Your task to perform on an android device: Open battery settings Image 0: 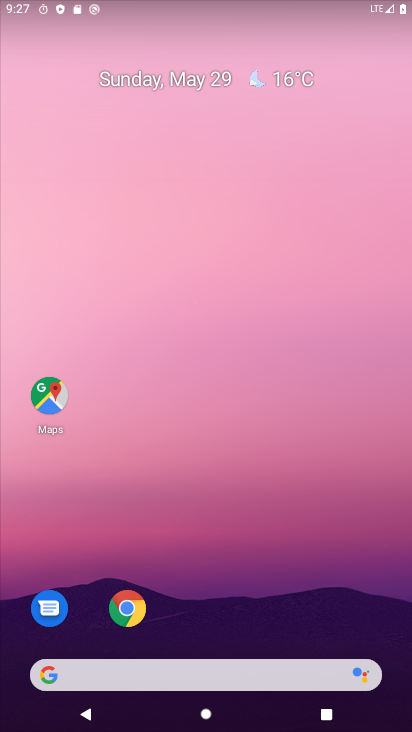
Step 0: drag from (211, 618) to (327, 62)
Your task to perform on an android device: Open battery settings Image 1: 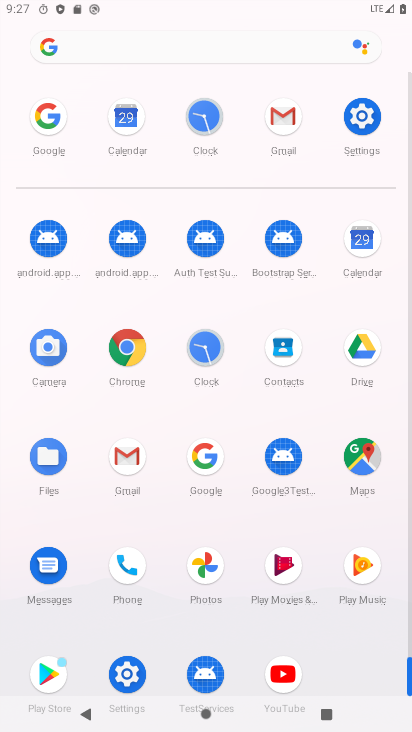
Step 1: click (368, 113)
Your task to perform on an android device: Open battery settings Image 2: 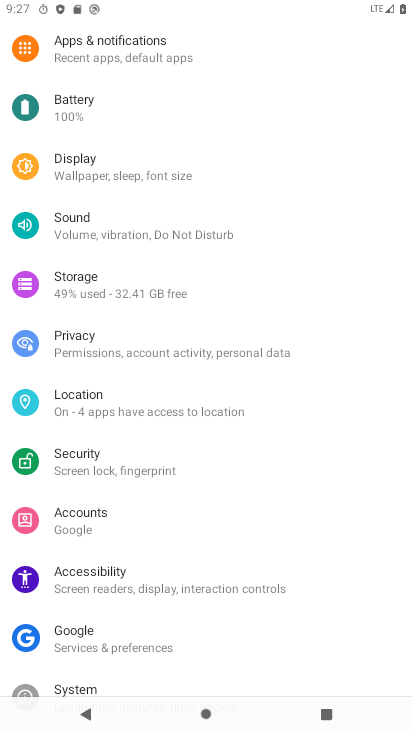
Step 2: click (59, 107)
Your task to perform on an android device: Open battery settings Image 3: 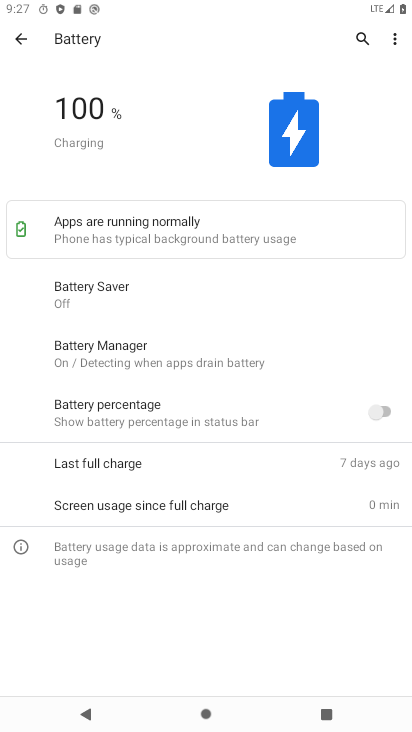
Step 3: task complete